Your task to perform on an android device: Go to calendar. Show me events next week Image 0: 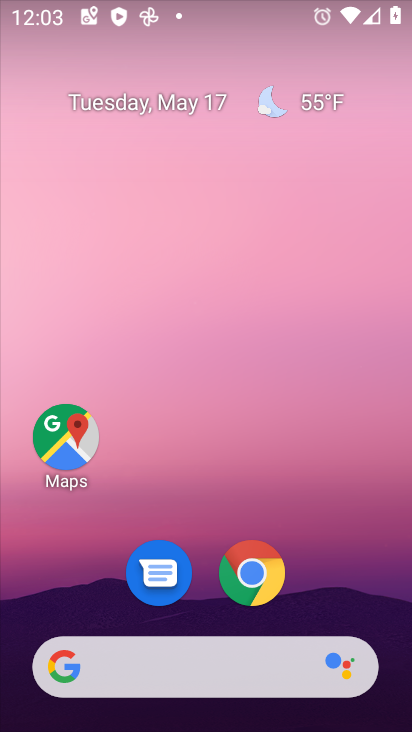
Step 0: drag from (342, 538) to (315, 75)
Your task to perform on an android device: Go to calendar. Show me events next week Image 1: 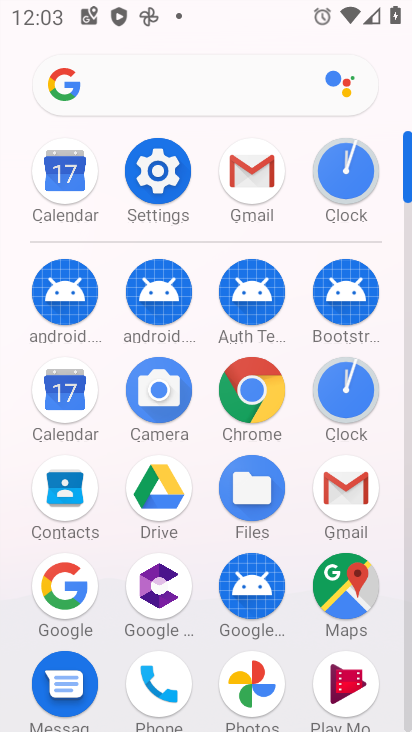
Step 1: click (77, 180)
Your task to perform on an android device: Go to calendar. Show me events next week Image 2: 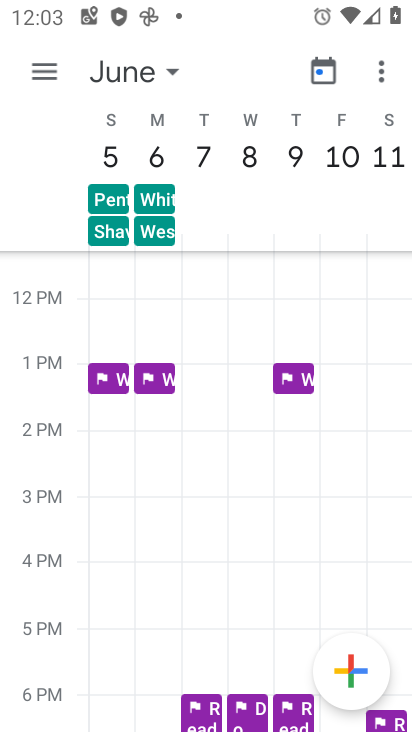
Step 2: click (131, 77)
Your task to perform on an android device: Go to calendar. Show me events next week Image 3: 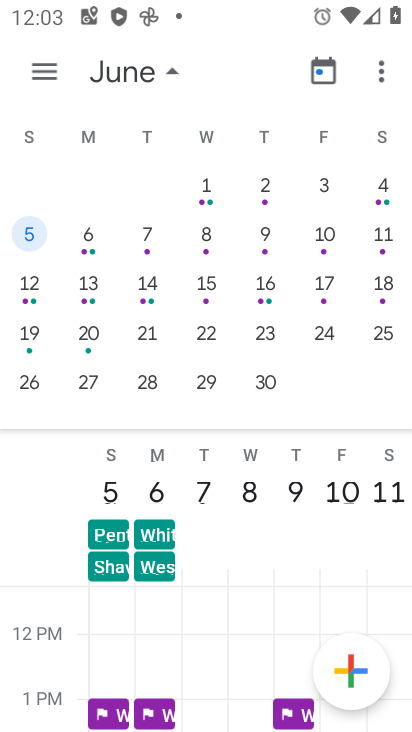
Step 3: drag from (47, 225) to (410, 269)
Your task to perform on an android device: Go to calendar. Show me events next week Image 4: 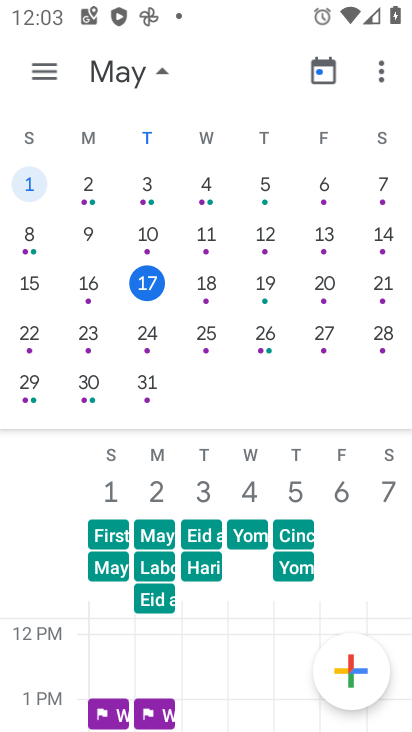
Step 4: click (92, 330)
Your task to perform on an android device: Go to calendar. Show me events next week Image 5: 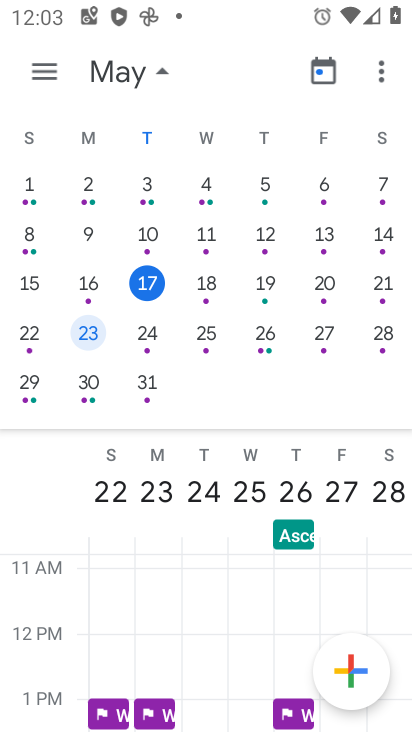
Step 5: task complete